Your task to perform on an android device: change notification settings in the gmail app Image 0: 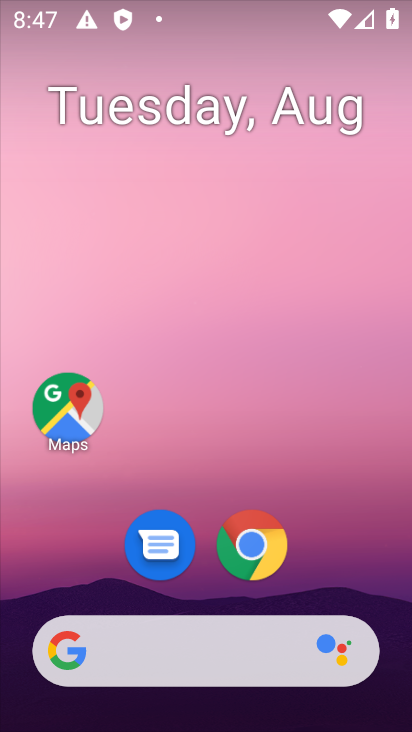
Step 0: drag from (130, 643) to (407, 43)
Your task to perform on an android device: change notification settings in the gmail app Image 1: 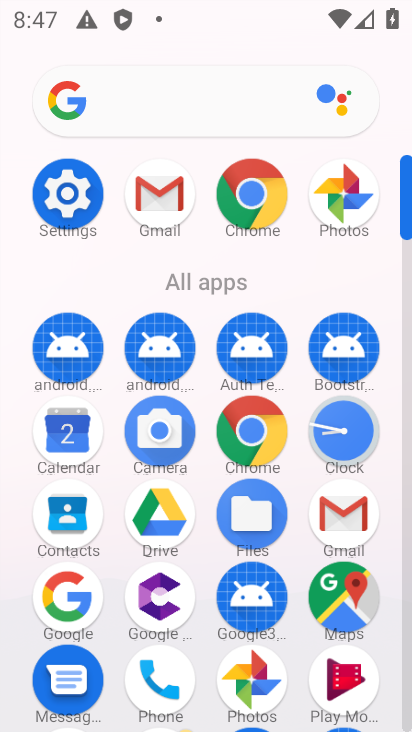
Step 1: click (140, 206)
Your task to perform on an android device: change notification settings in the gmail app Image 2: 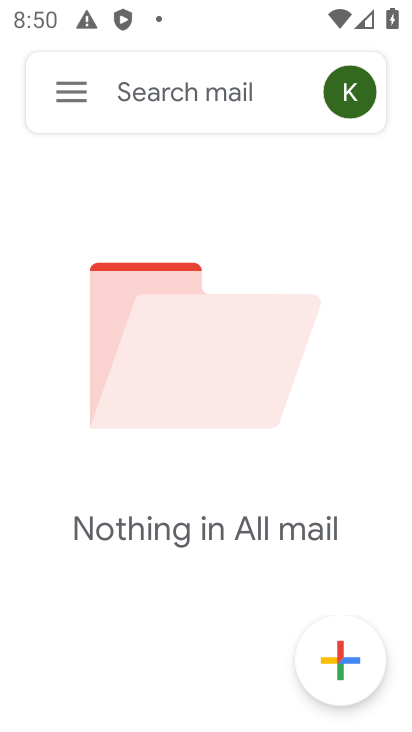
Step 2: task complete